Your task to perform on an android device: Go to Reddit.com Image 0: 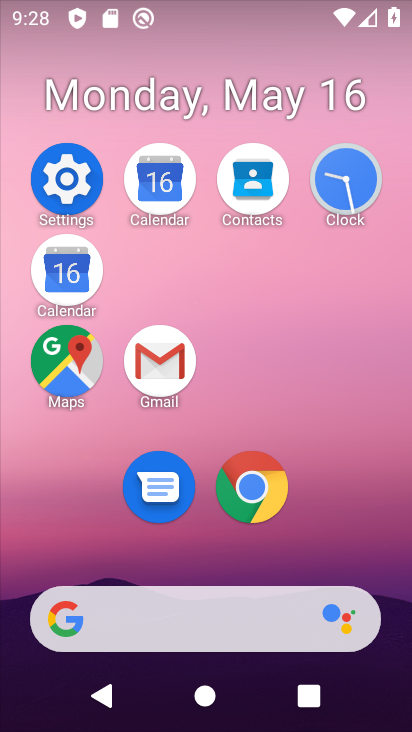
Step 0: click (258, 488)
Your task to perform on an android device: Go to Reddit.com Image 1: 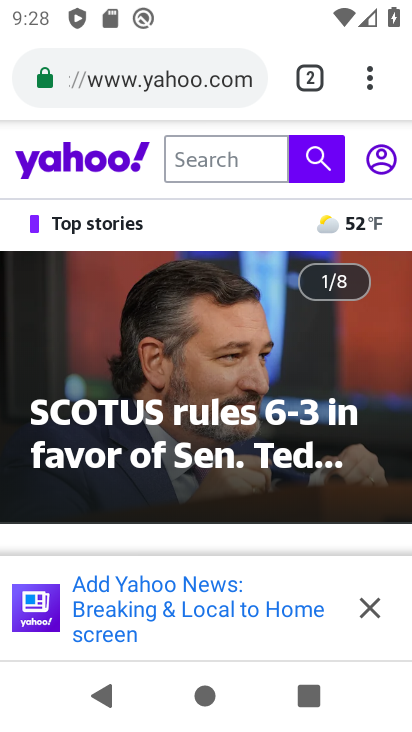
Step 1: click (296, 93)
Your task to perform on an android device: Go to Reddit.com Image 2: 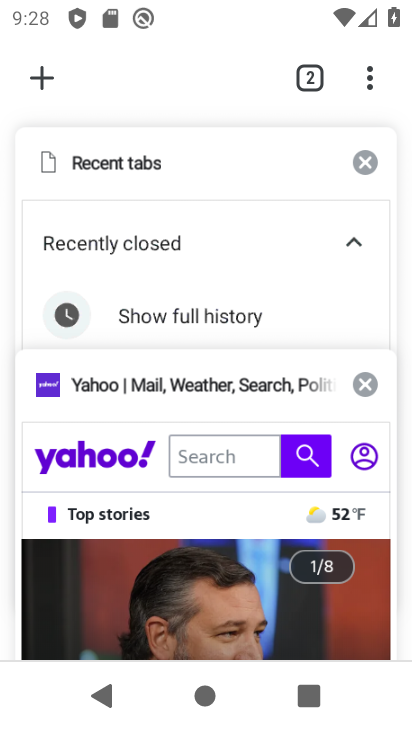
Step 2: click (35, 94)
Your task to perform on an android device: Go to Reddit.com Image 3: 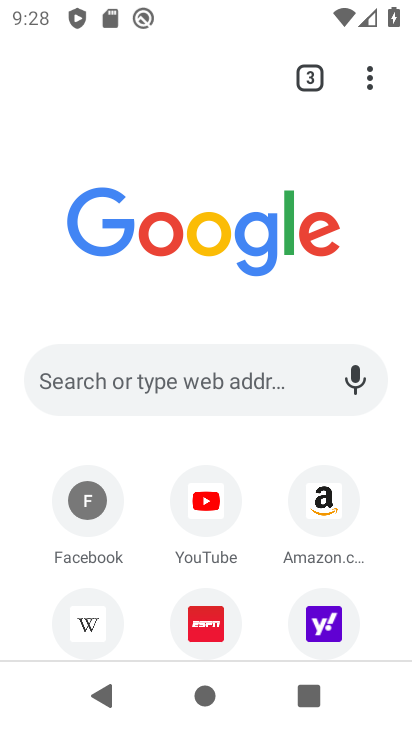
Step 3: click (166, 367)
Your task to perform on an android device: Go to Reddit.com Image 4: 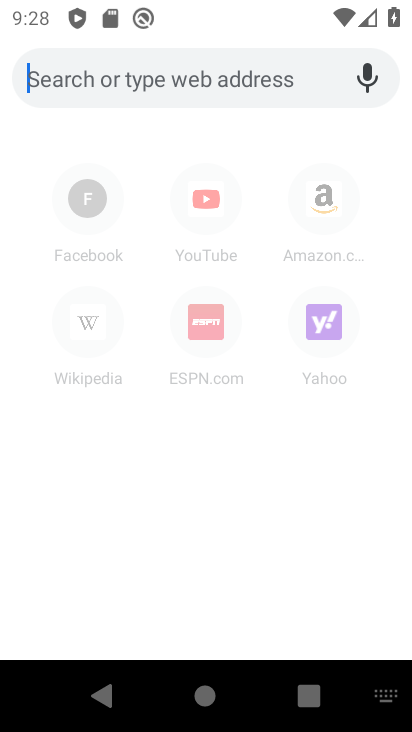
Step 4: type "reddit"
Your task to perform on an android device: Go to Reddit.com Image 5: 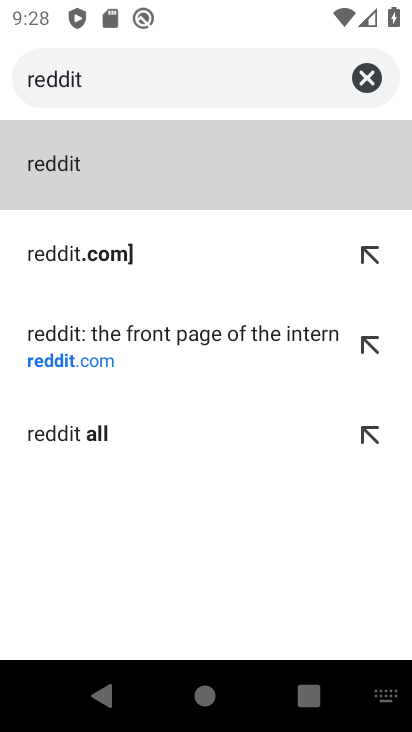
Step 5: click (126, 364)
Your task to perform on an android device: Go to Reddit.com Image 6: 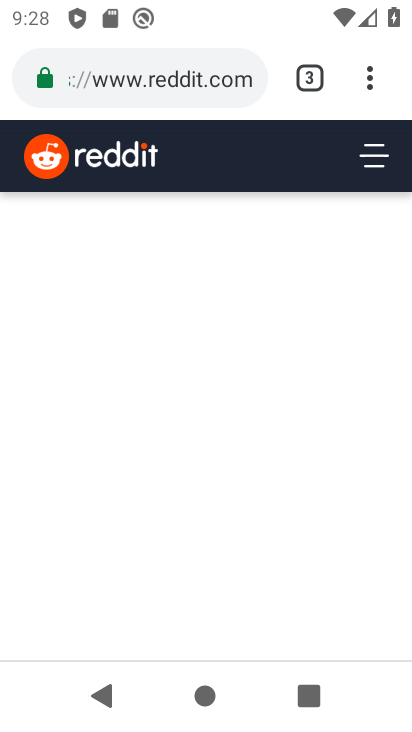
Step 6: task complete